Your task to perform on an android device: Open Youtube and go to "Your channel" Image 0: 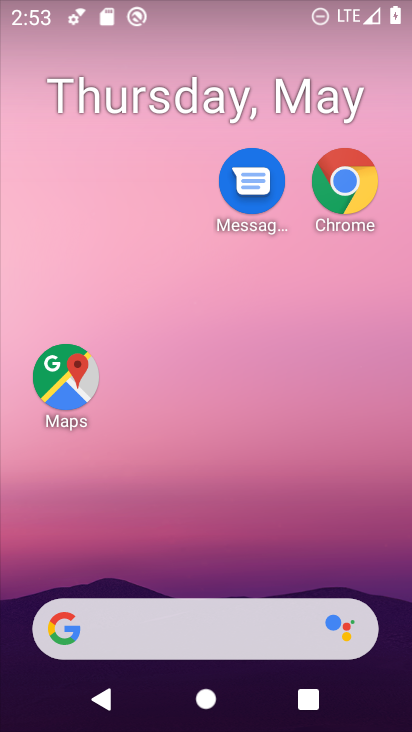
Step 0: drag from (332, 614) to (299, 6)
Your task to perform on an android device: Open Youtube and go to "Your channel" Image 1: 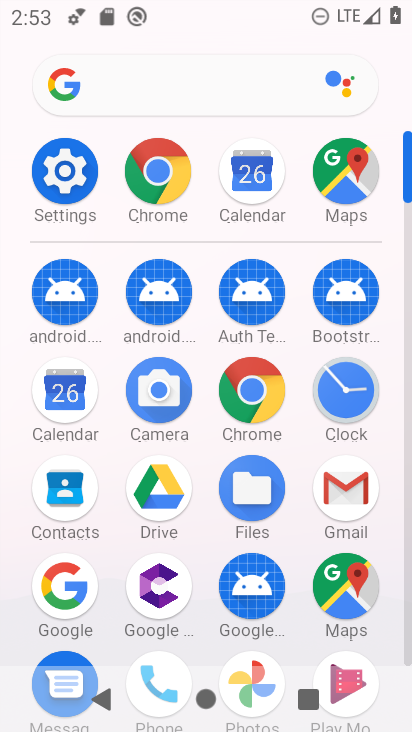
Step 1: drag from (310, 555) to (303, 76)
Your task to perform on an android device: Open Youtube and go to "Your channel" Image 2: 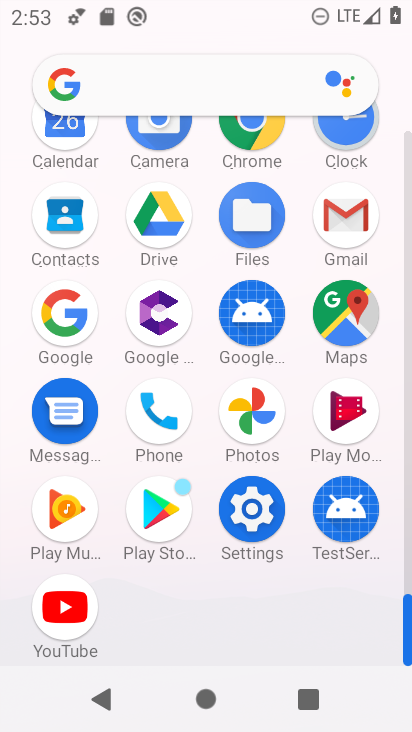
Step 2: click (72, 609)
Your task to perform on an android device: Open Youtube and go to "Your channel" Image 3: 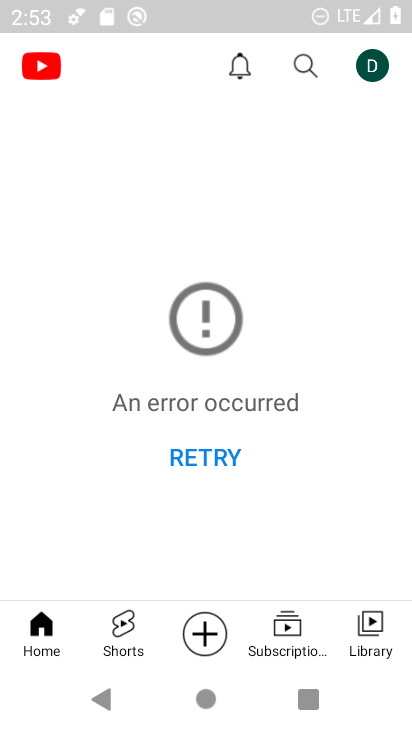
Step 3: click (375, 63)
Your task to perform on an android device: Open Youtube and go to "Your channel" Image 4: 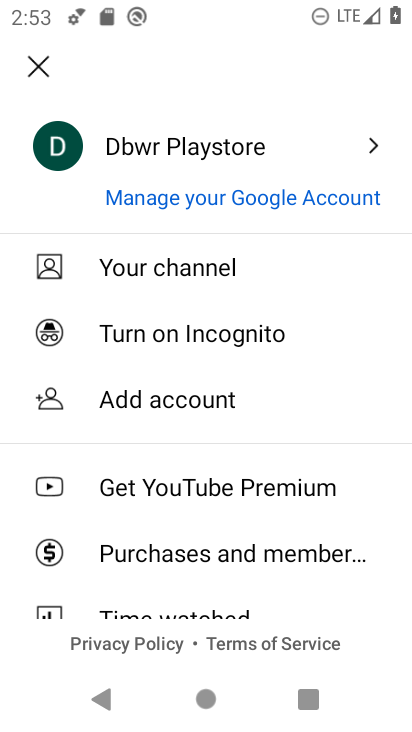
Step 4: click (227, 265)
Your task to perform on an android device: Open Youtube and go to "Your channel" Image 5: 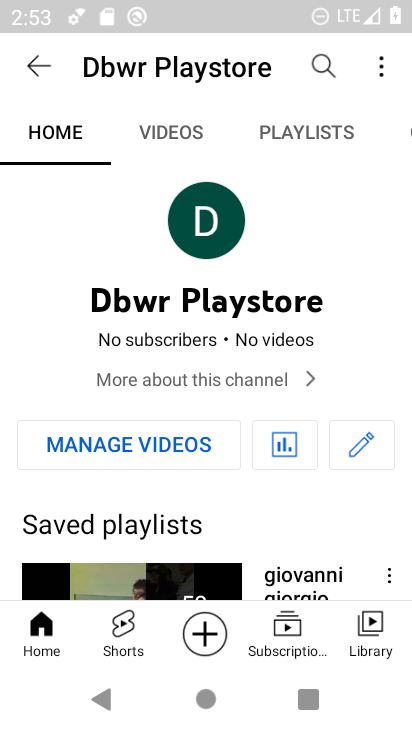
Step 5: task complete